Your task to perform on an android device: clear all cookies in the chrome app Image 0: 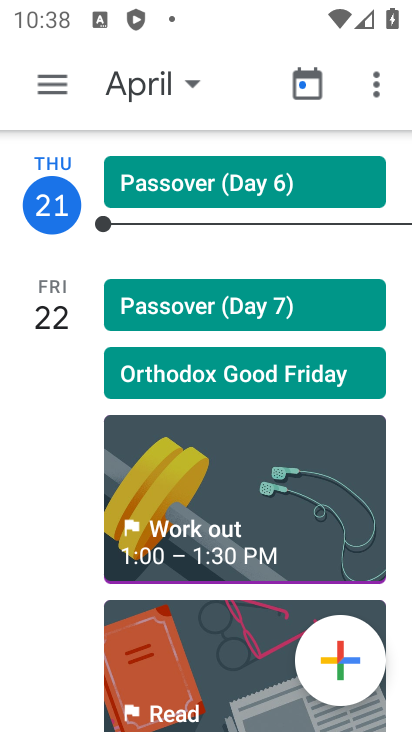
Step 0: press home button
Your task to perform on an android device: clear all cookies in the chrome app Image 1: 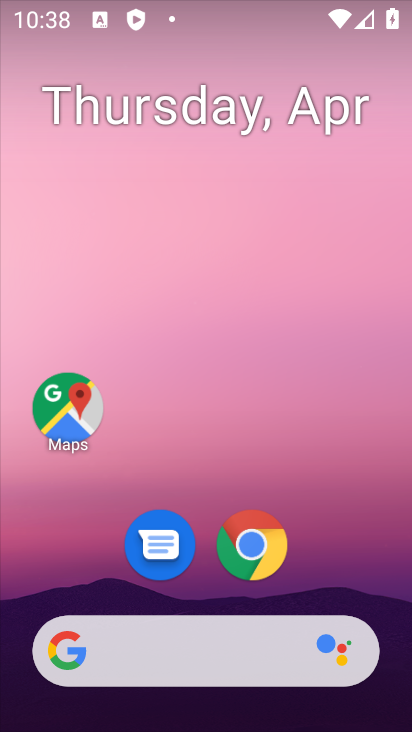
Step 1: task complete